Your task to perform on an android device: set an alarm Image 0: 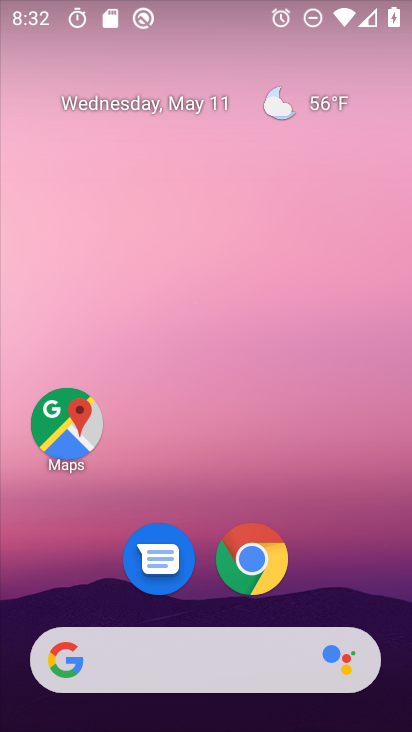
Step 0: drag from (348, 580) to (297, 8)
Your task to perform on an android device: set an alarm Image 1: 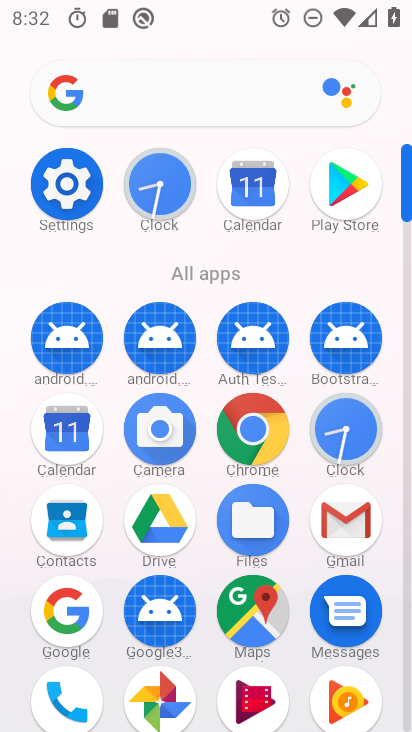
Step 1: click (153, 183)
Your task to perform on an android device: set an alarm Image 2: 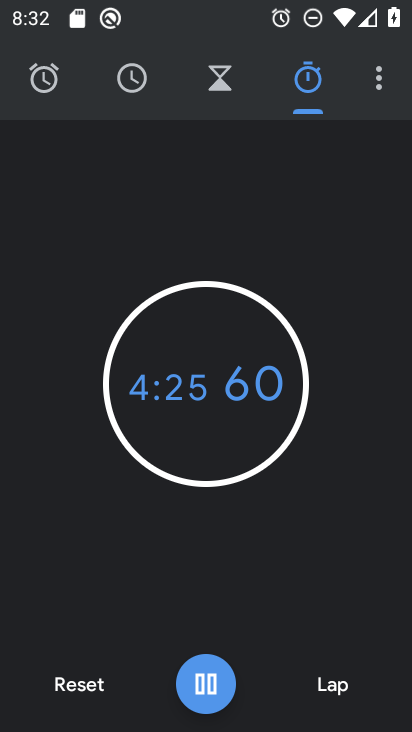
Step 2: click (44, 78)
Your task to perform on an android device: set an alarm Image 3: 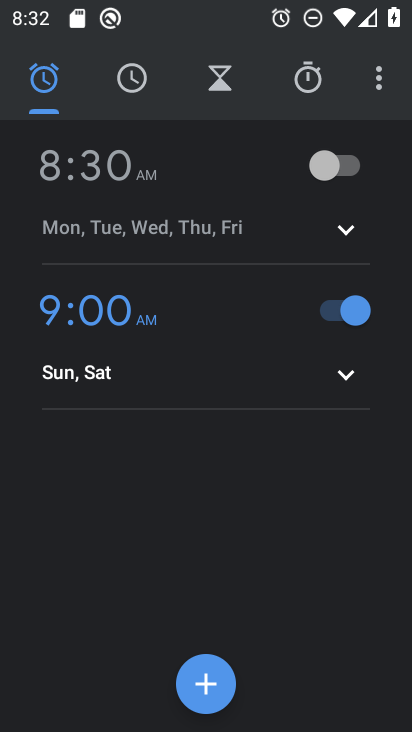
Step 3: click (343, 174)
Your task to perform on an android device: set an alarm Image 4: 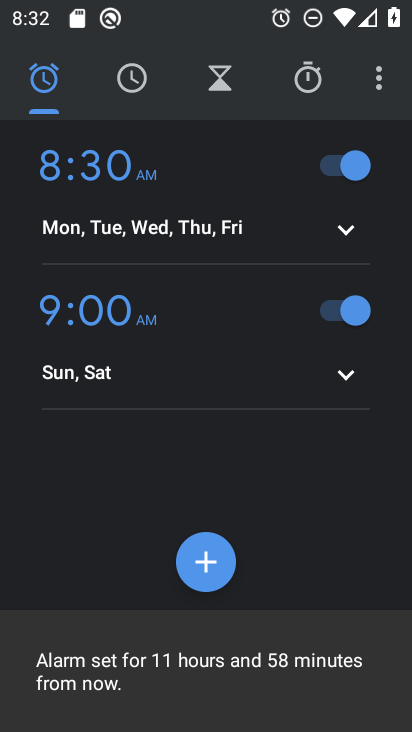
Step 4: task complete